Your task to perform on an android device: open chrome and create a bookmark for the current page Image 0: 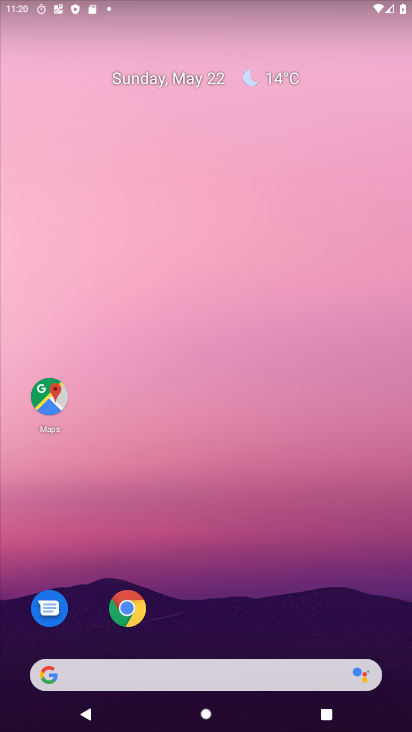
Step 0: click (125, 611)
Your task to perform on an android device: open chrome and create a bookmark for the current page Image 1: 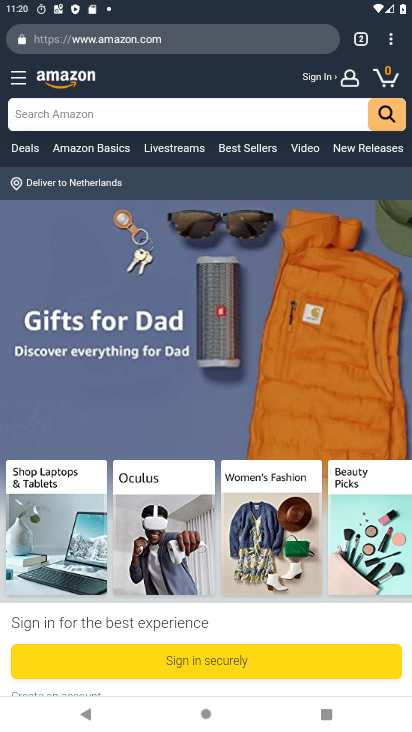
Step 1: click (392, 41)
Your task to perform on an android device: open chrome and create a bookmark for the current page Image 2: 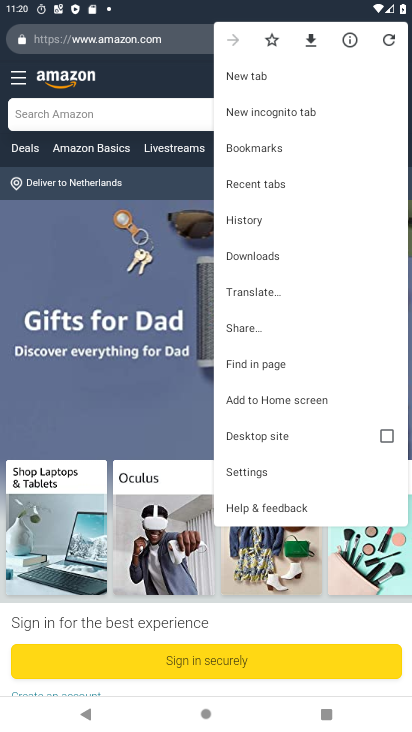
Step 2: click (274, 39)
Your task to perform on an android device: open chrome and create a bookmark for the current page Image 3: 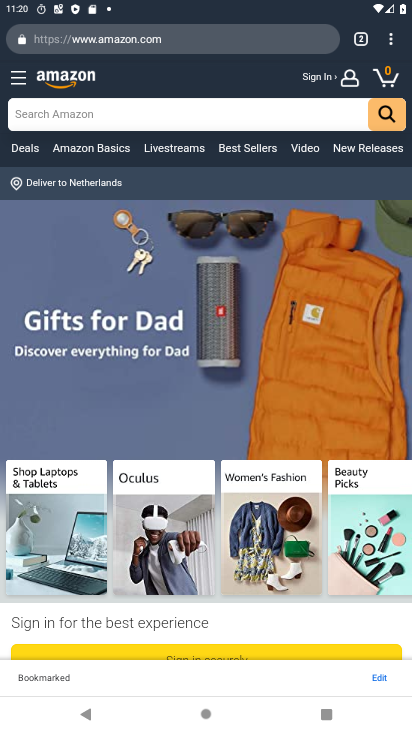
Step 3: task complete